Your task to perform on an android device: find snoozed emails in the gmail app Image 0: 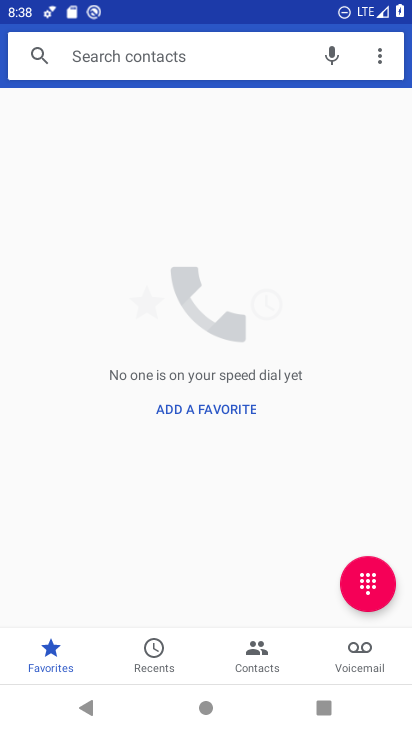
Step 0: press home button
Your task to perform on an android device: find snoozed emails in the gmail app Image 1: 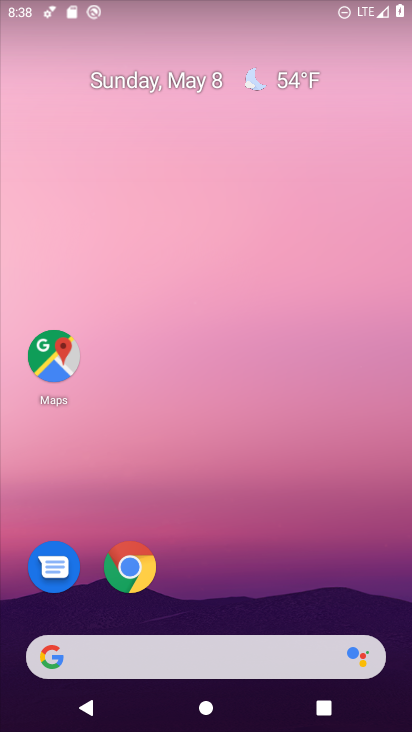
Step 1: drag from (304, 578) to (269, 0)
Your task to perform on an android device: find snoozed emails in the gmail app Image 2: 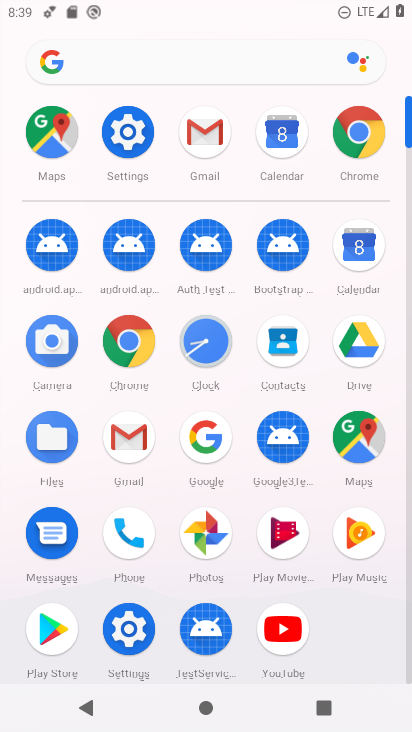
Step 2: click (197, 145)
Your task to perform on an android device: find snoozed emails in the gmail app Image 3: 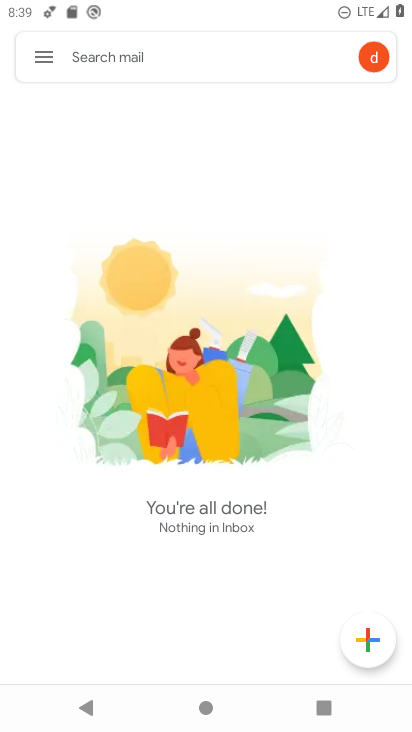
Step 3: click (44, 70)
Your task to perform on an android device: find snoozed emails in the gmail app Image 4: 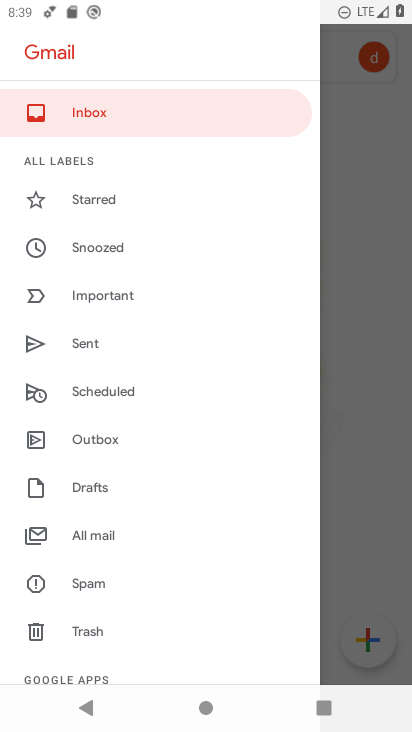
Step 4: click (70, 254)
Your task to perform on an android device: find snoozed emails in the gmail app Image 5: 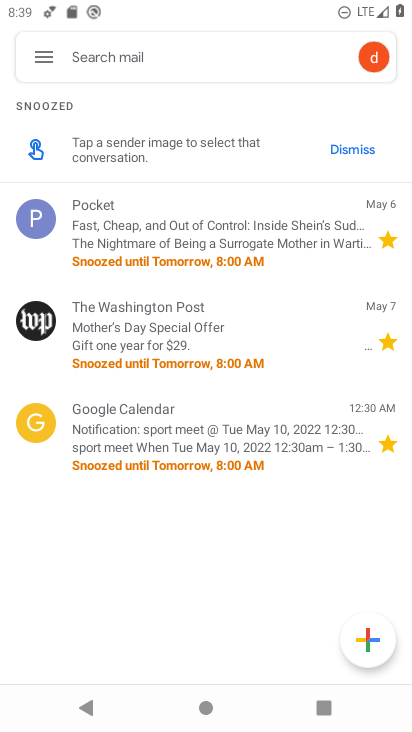
Step 5: click (99, 229)
Your task to perform on an android device: find snoozed emails in the gmail app Image 6: 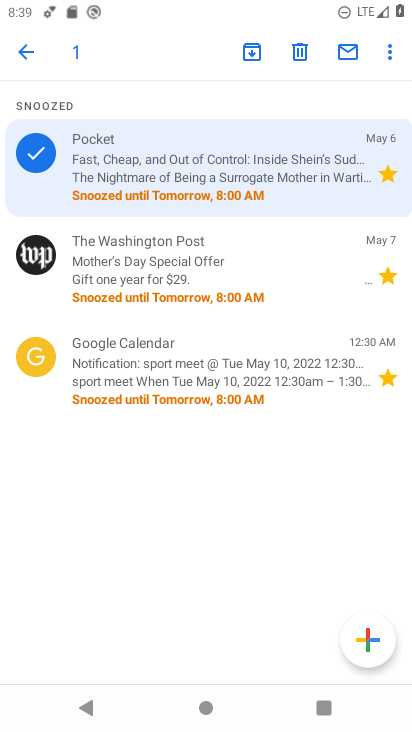
Step 6: click (38, 168)
Your task to perform on an android device: find snoozed emails in the gmail app Image 7: 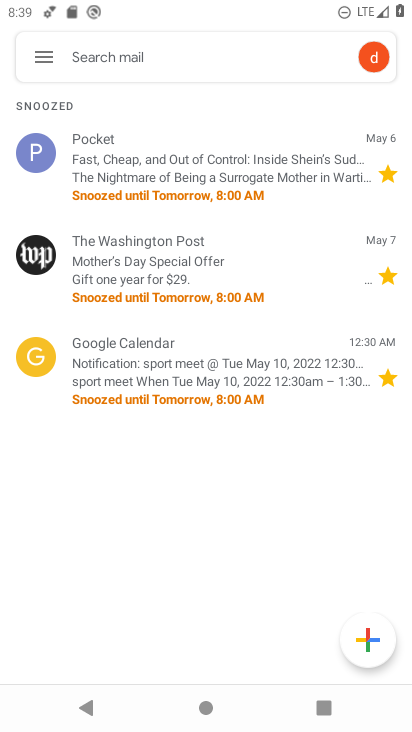
Step 7: click (211, 166)
Your task to perform on an android device: find snoozed emails in the gmail app Image 8: 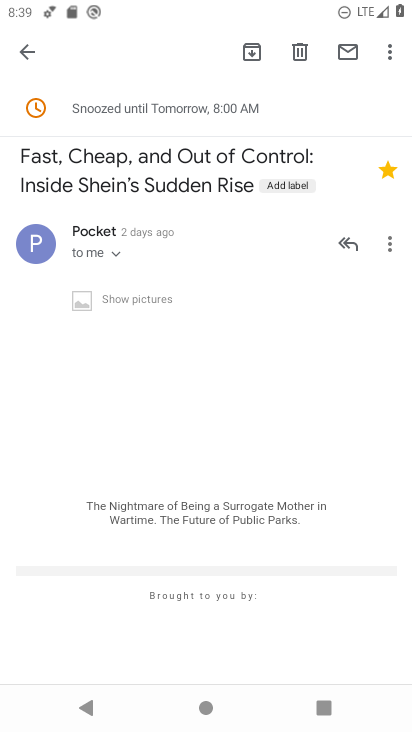
Step 8: task complete